Your task to perform on an android device: open app "Flipkart Online Shopping App" (install if not already installed) Image 0: 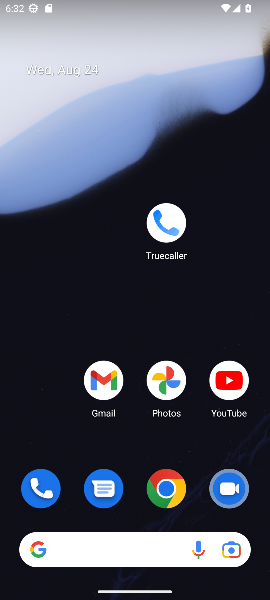
Step 0: drag from (207, 508) to (155, 30)
Your task to perform on an android device: open app "Flipkart Online Shopping App" (install if not already installed) Image 1: 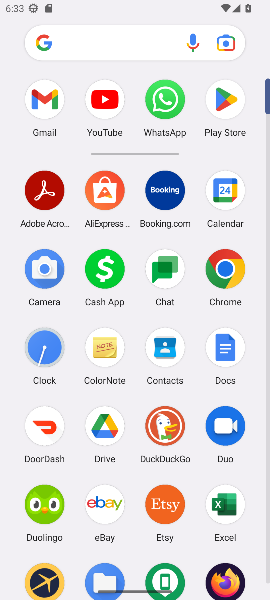
Step 1: click (217, 99)
Your task to perform on an android device: open app "Flipkart Online Shopping App" (install if not already installed) Image 2: 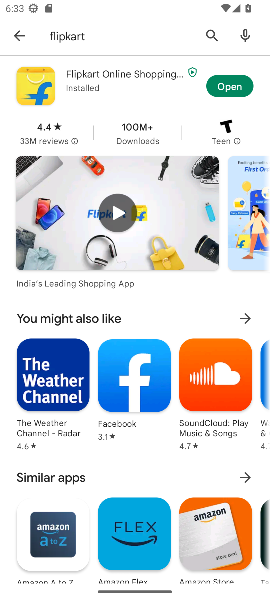
Step 2: click (211, 39)
Your task to perform on an android device: open app "Flipkart Online Shopping App" (install if not already installed) Image 3: 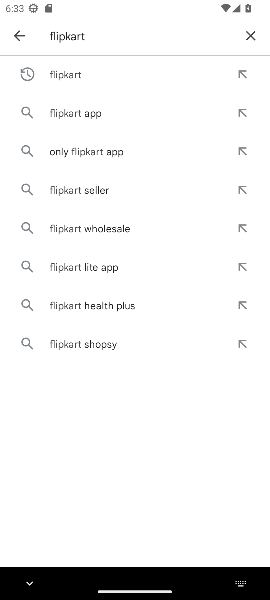
Step 3: click (39, 68)
Your task to perform on an android device: open app "Flipkart Online Shopping App" (install if not already installed) Image 4: 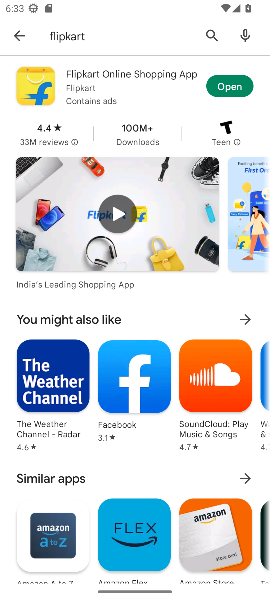
Step 4: click (211, 87)
Your task to perform on an android device: open app "Flipkart Online Shopping App" (install if not already installed) Image 5: 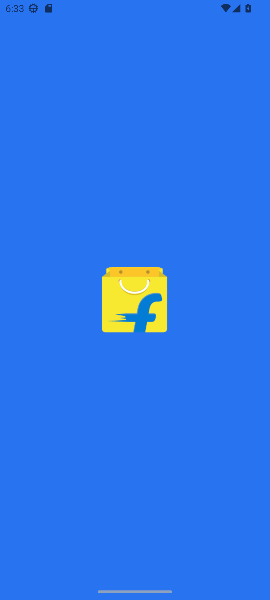
Step 5: task complete